Your task to perform on an android device: toggle notifications settings in the gmail app Image 0: 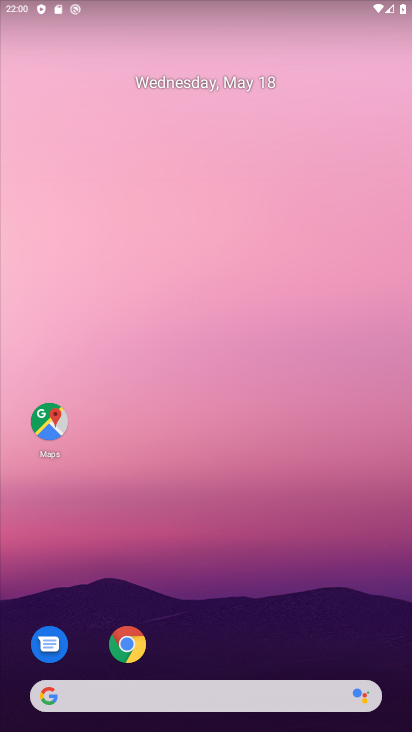
Step 0: drag from (228, 630) to (232, 146)
Your task to perform on an android device: toggle notifications settings in the gmail app Image 1: 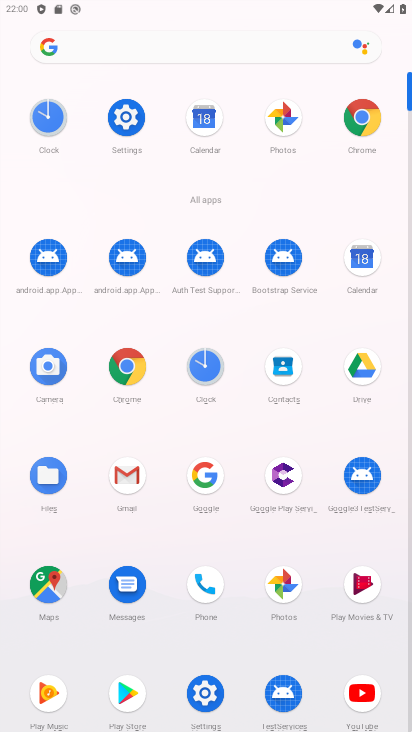
Step 1: click (125, 476)
Your task to perform on an android device: toggle notifications settings in the gmail app Image 2: 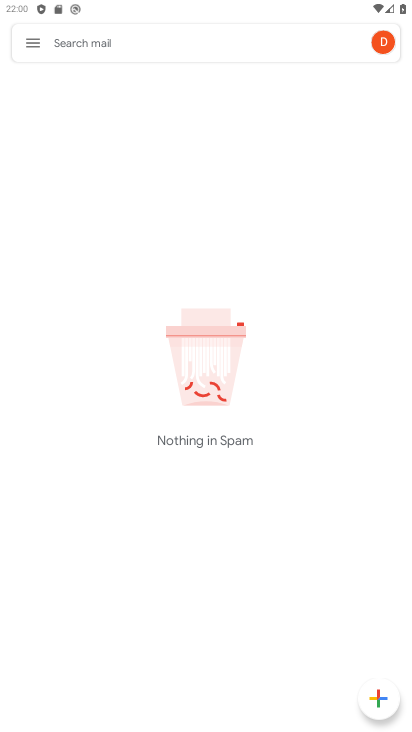
Step 2: click (34, 43)
Your task to perform on an android device: toggle notifications settings in the gmail app Image 3: 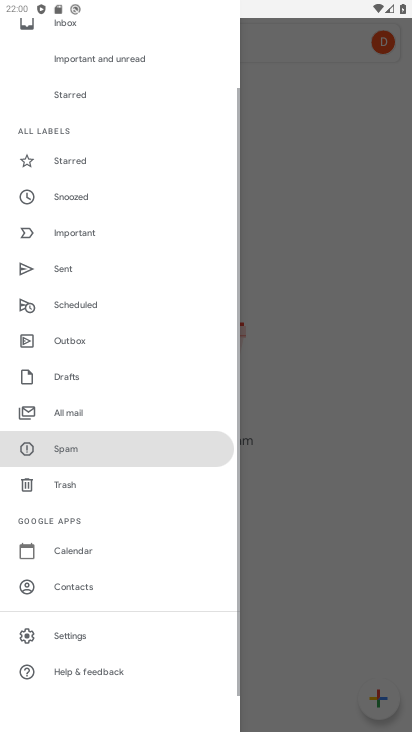
Step 3: drag from (127, 583) to (187, 172)
Your task to perform on an android device: toggle notifications settings in the gmail app Image 4: 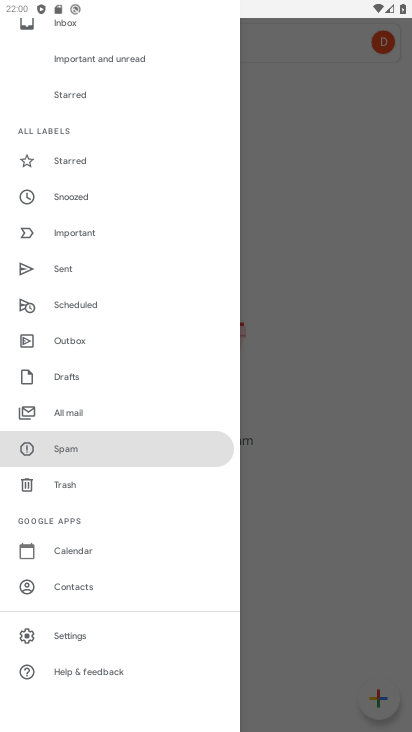
Step 4: click (75, 636)
Your task to perform on an android device: toggle notifications settings in the gmail app Image 5: 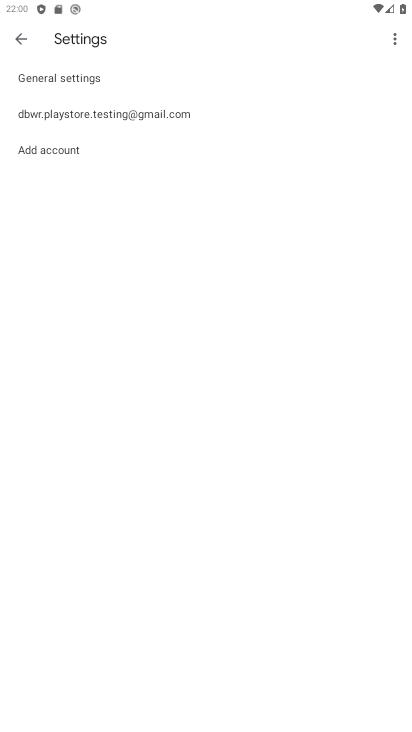
Step 5: click (101, 113)
Your task to perform on an android device: toggle notifications settings in the gmail app Image 6: 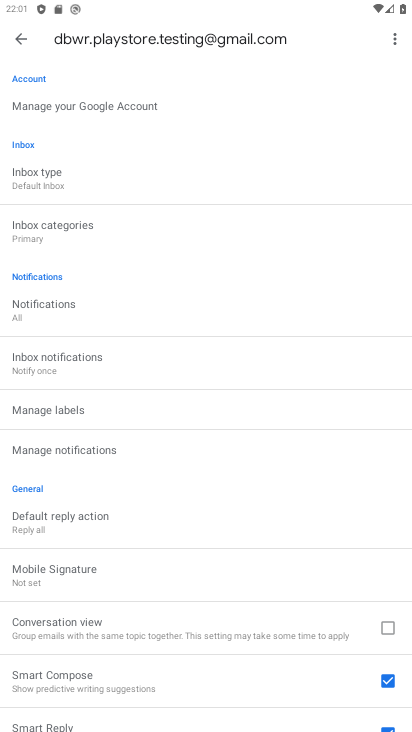
Step 6: click (64, 451)
Your task to perform on an android device: toggle notifications settings in the gmail app Image 7: 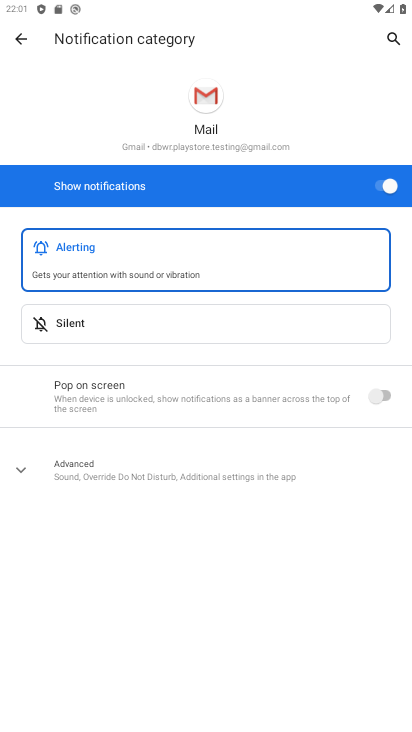
Step 7: click (384, 186)
Your task to perform on an android device: toggle notifications settings in the gmail app Image 8: 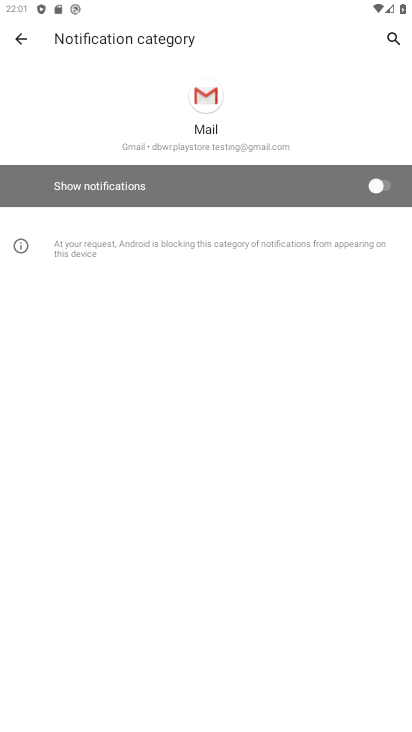
Step 8: task complete